Your task to perform on an android device: delete browsing data in the chrome app Image 0: 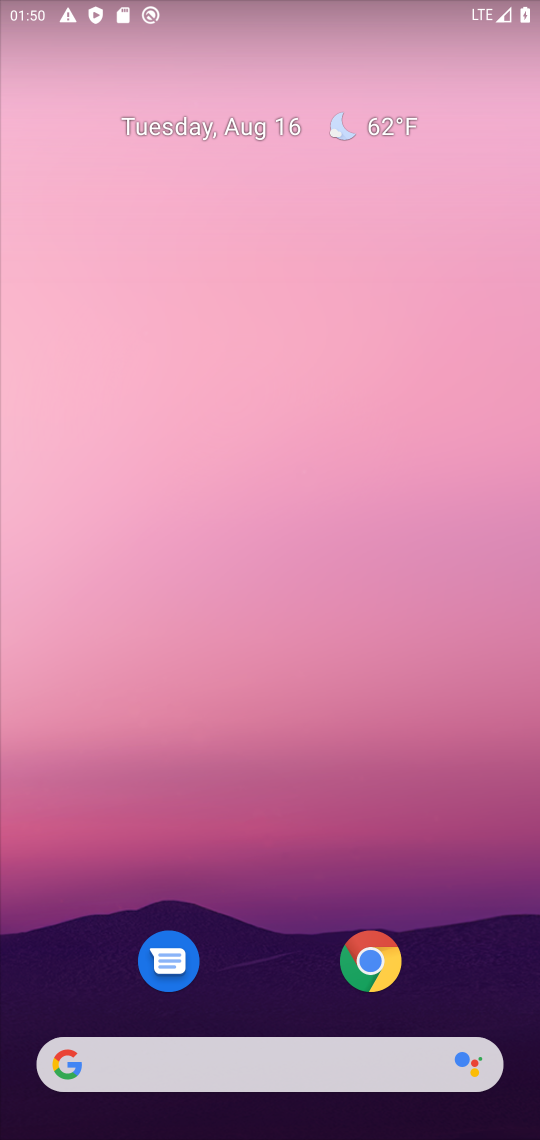
Step 0: press home button
Your task to perform on an android device: delete browsing data in the chrome app Image 1: 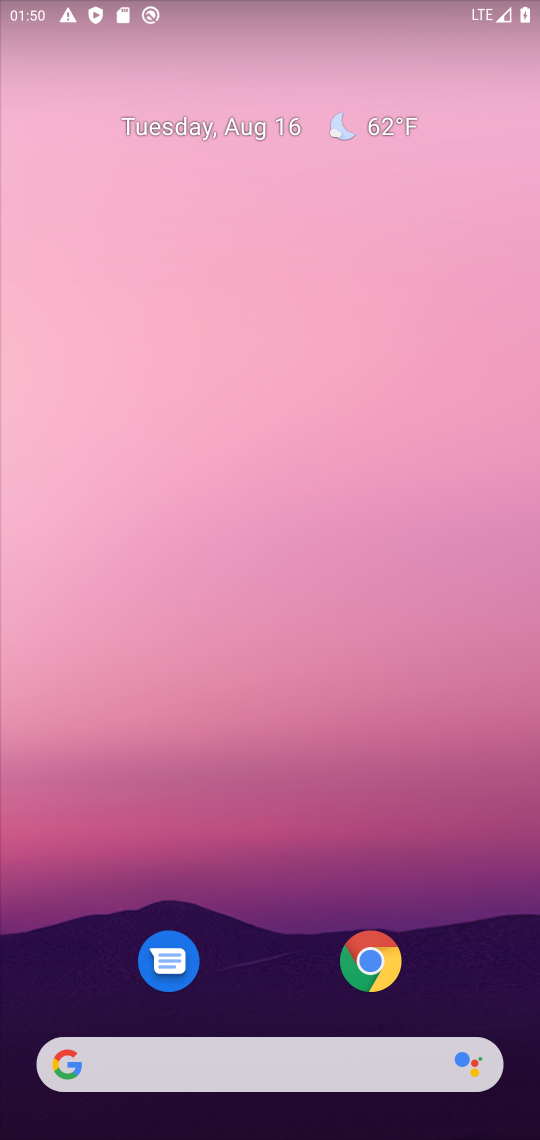
Step 1: drag from (298, 986) to (435, 150)
Your task to perform on an android device: delete browsing data in the chrome app Image 2: 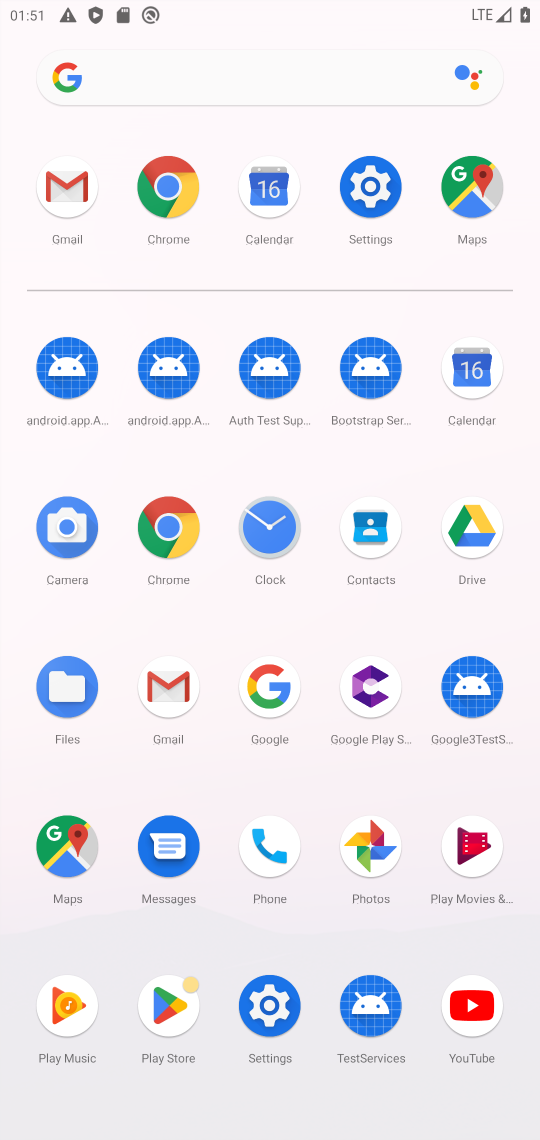
Step 2: click (146, 537)
Your task to perform on an android device: delete browsing data in the chrome app Image 3: 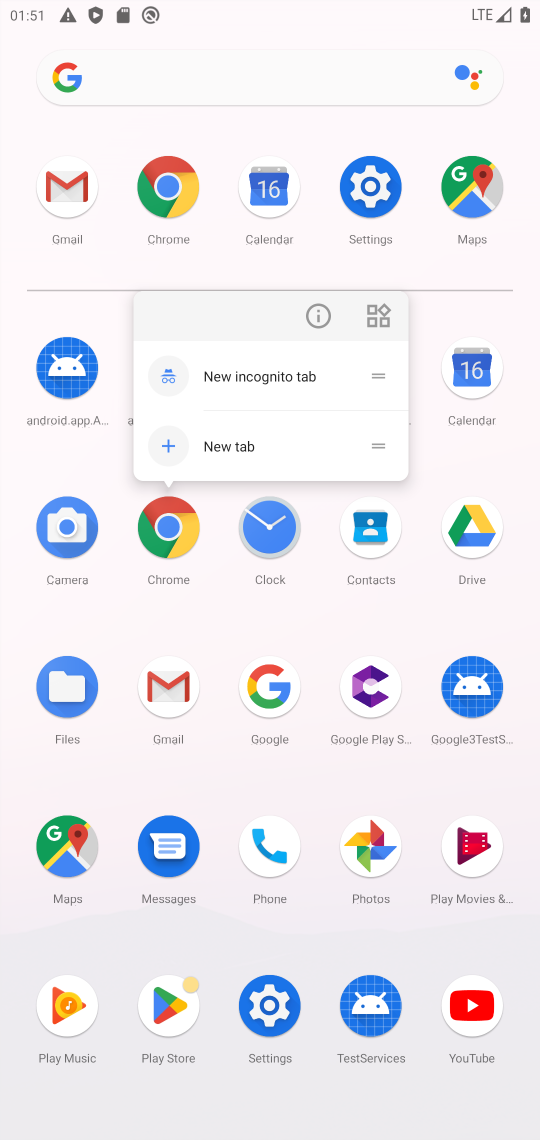
Step 3: click (146, 537)
Your task to perform on an android device: delete browsing data in the chrome app Image 4: 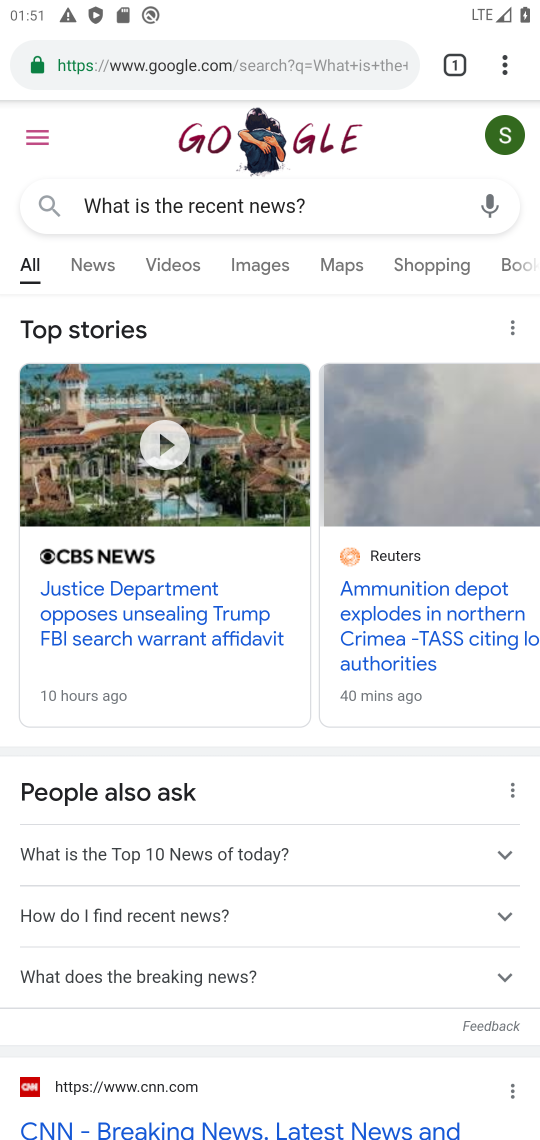
Step 4: drag from (520, 64) to (222, 794)
Your task to perform on an android device: delete browsing data in the chrome app Image 5: 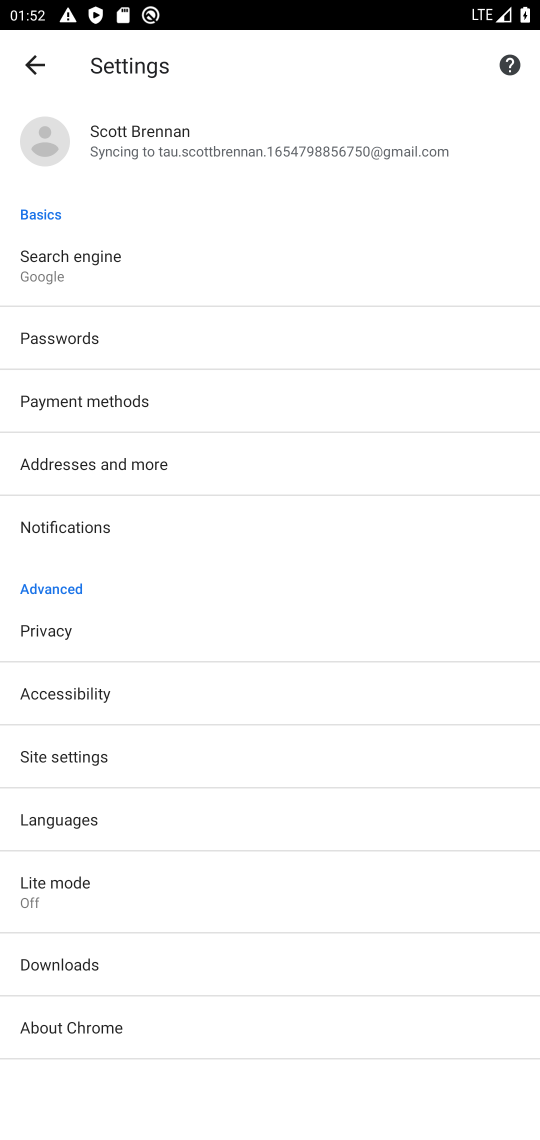
Step 5: click (67, 624)
Your task to perform on an android device: delete browsing data in the chrome app Image 6: 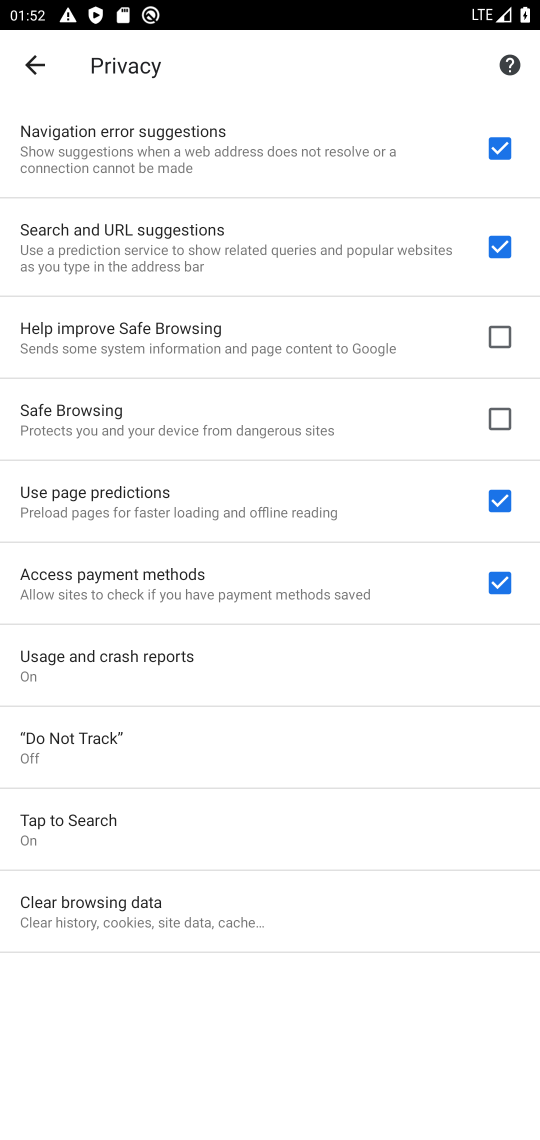
Step 6: click (79, 909)
Your task to perform on an android device: delete browsing data in the chrome app Image 7: 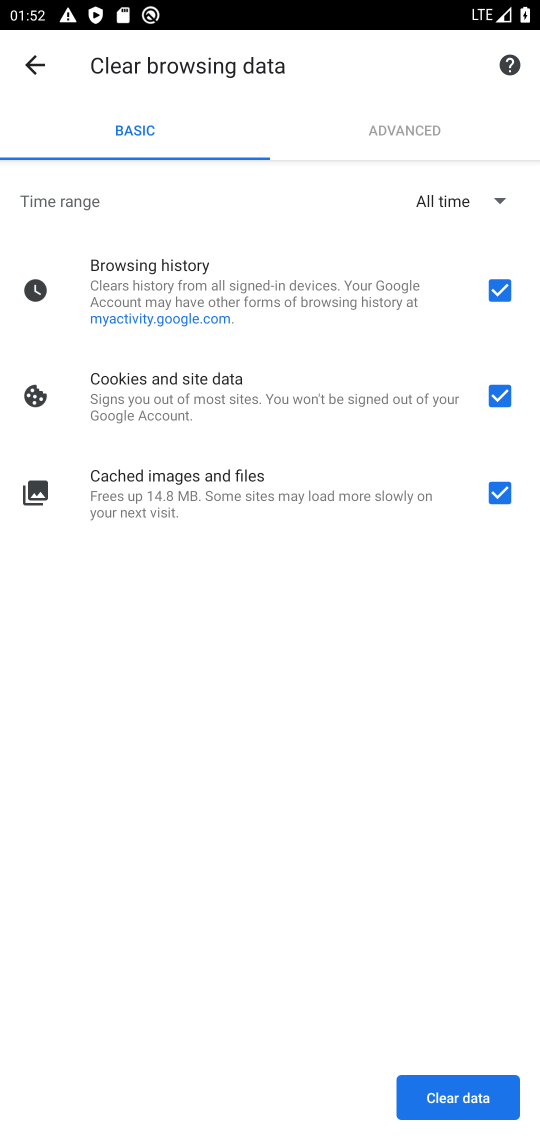
Step 7: click (423, 1100)
Your task to perform on an android device: delete browsing data in the chrome app Image 8: 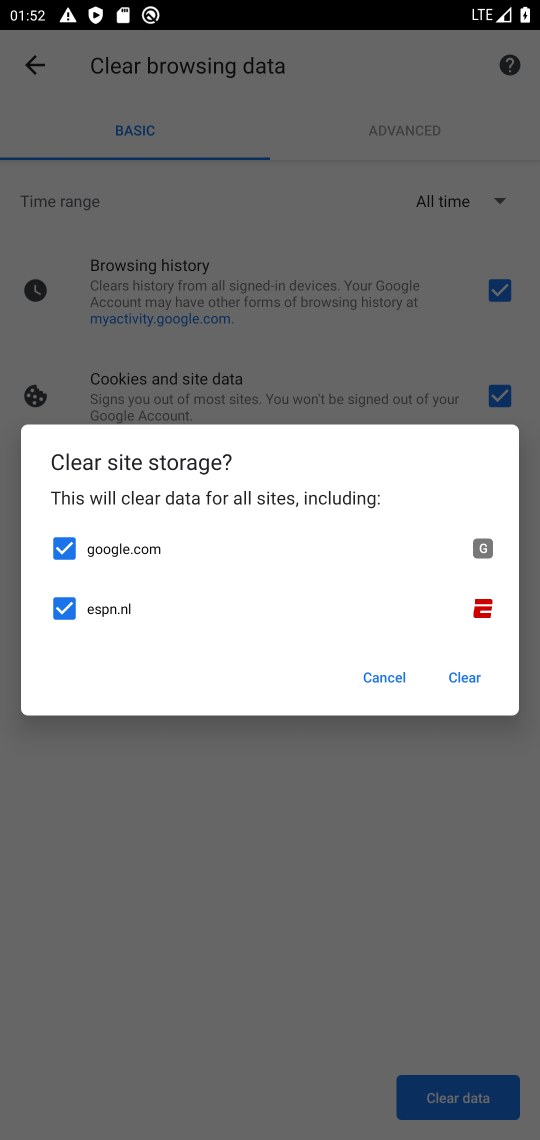
Step 8: click (449, 679)
Your task to perform on an android device: delete browsing data in the chrome app Image 9: 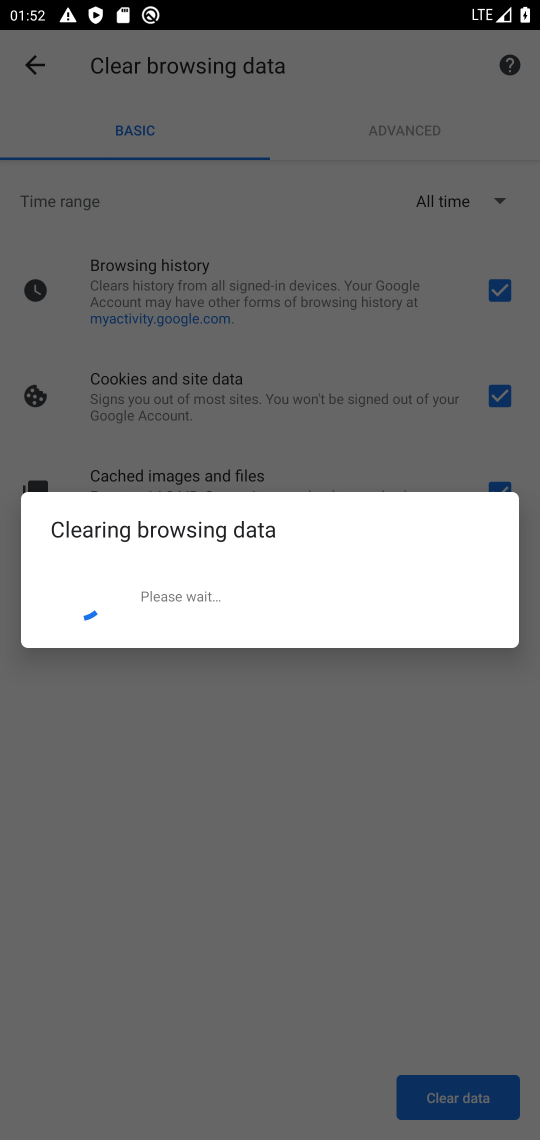
Step 9: task complete